Your task to perform on an android device: Open Youtube and go to "Your channel" Image 0: 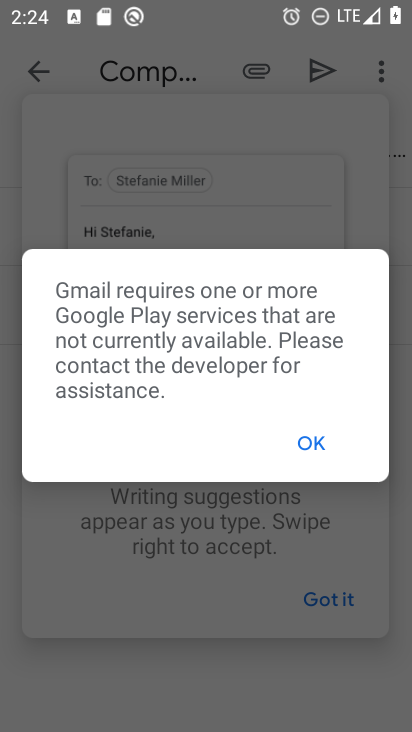
Step 0: press home button
Your task to perform on an android device: Open Youtube and go to "Your channel" Image 1: 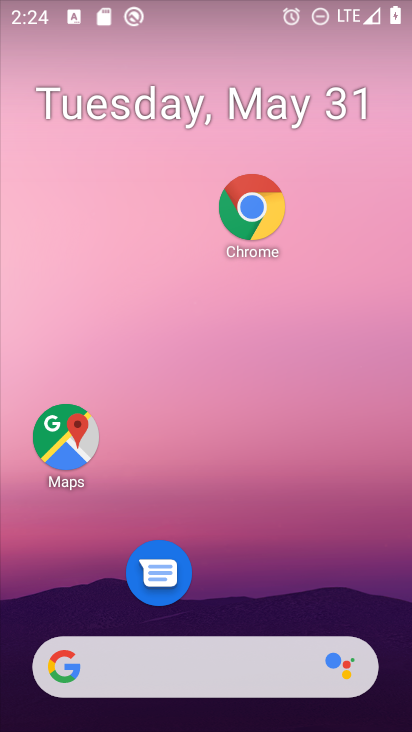
Step 1: drag from (233, 622) to (254, 118)
Your task to perform on an android device: Open Youtube and go to "Your channel" Image 2: 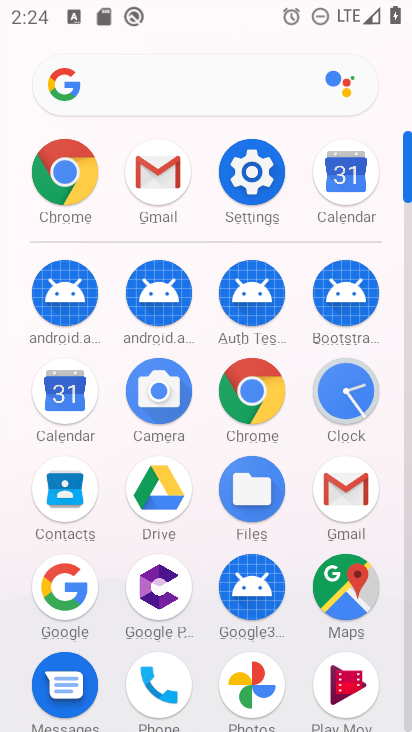
Step 2: drag from (223, 594) to (239, 241)
Your task to perform on an android device: Open Youtube and go to "Your channel" Image 3: 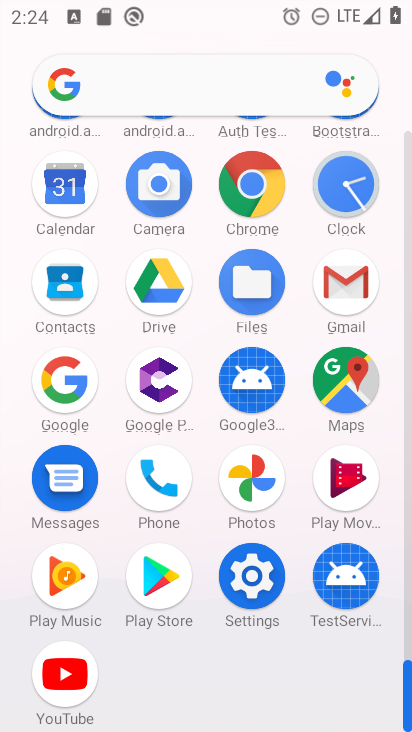
Step 3: click (71, 689)
Your task to perform on an android device: Open Youtube and go to "Your channel" Image 4: 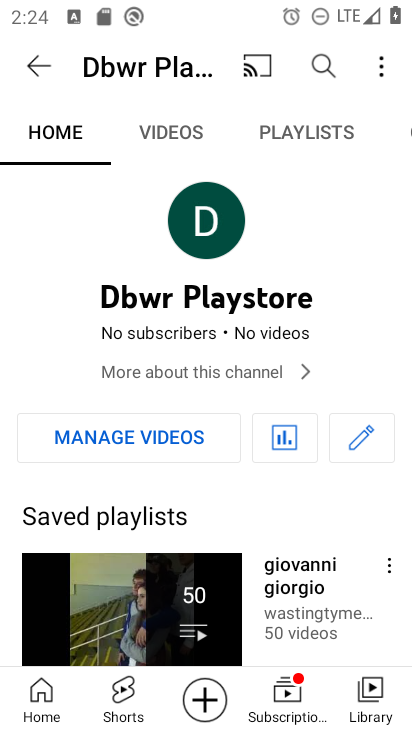
Step 4: task complete